Your task to perform on an android device: Go to Amazon Image 0: 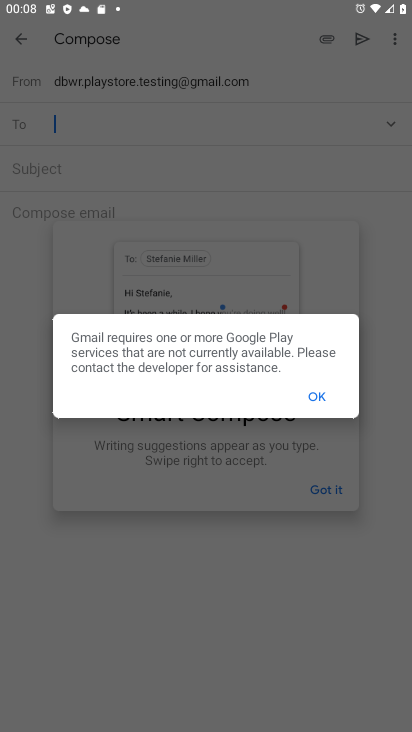
Step 0: press home button
Your task to perform on an android device: Go to Amazon Image 1: 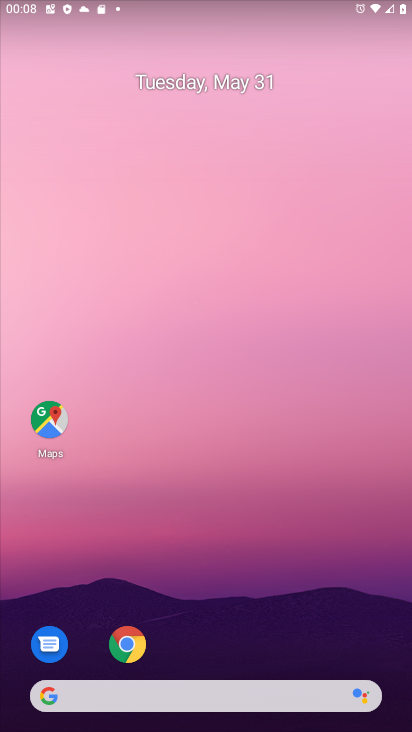
Step 1: click (126, 653)
Your task to perform on an android device: Go to Amazon Image 2: 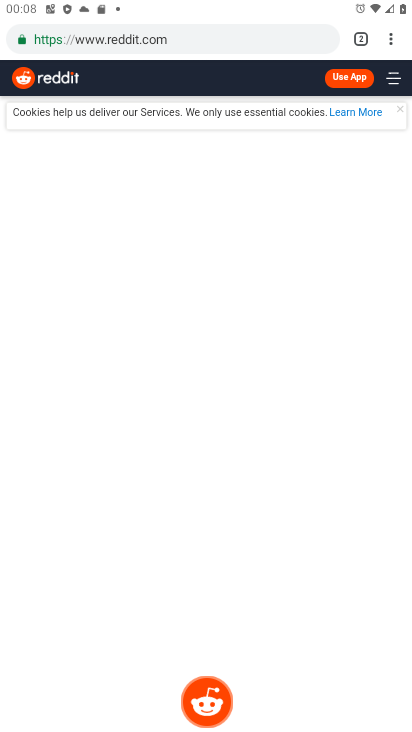
Step 2: click (202, 48)
Your task to perform on an android device: Go to Amazon Image 3: 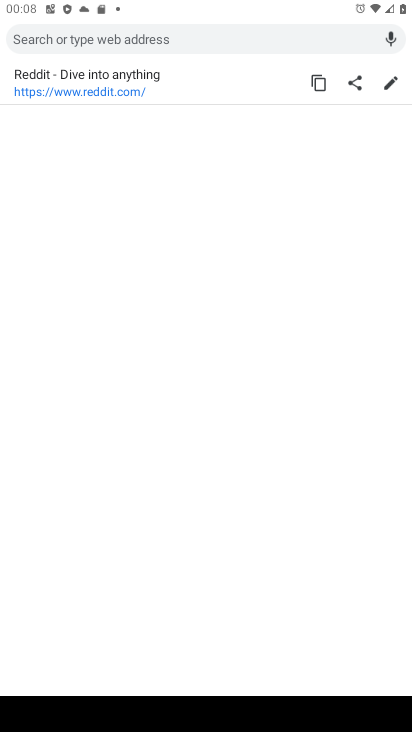
Step 3: type "amazon"
Your task to perform on an android device: Go to Amazon Image 4: 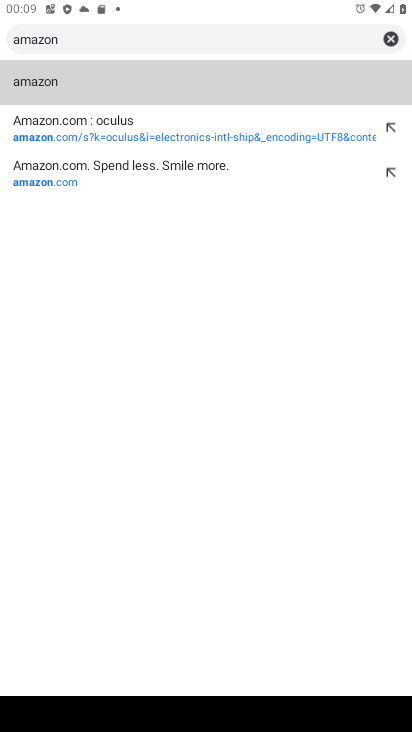
Step 4: click (47, 173)
Your task to perform on an android device: Go to Amazon Image 5: 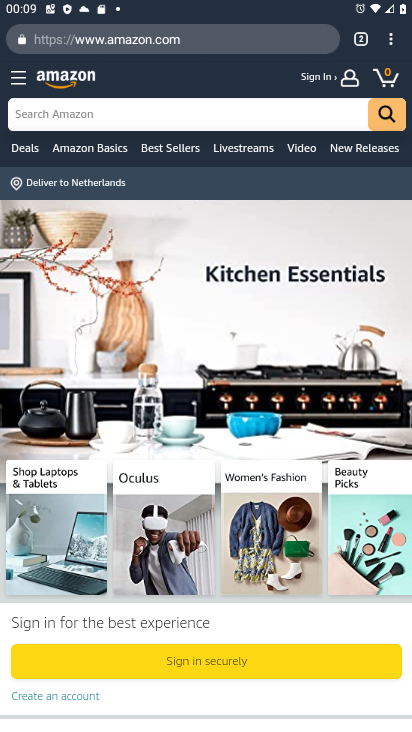
Step 5: task complete